Your task to perform on an android device: change timer sound Image 0: 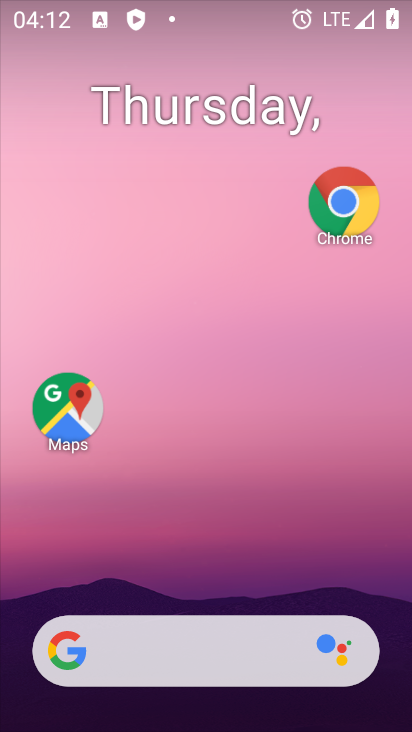
Step 0: drag from (239, 633) to (352, 63)
Your task to perform on an android device: change timer sound Image 1: 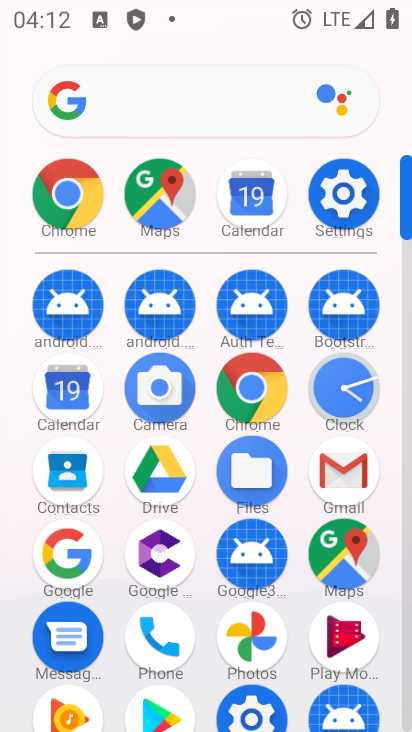
Step 1: click (335, 387)
Your task to perform on an android device: change timer sound Image 2: 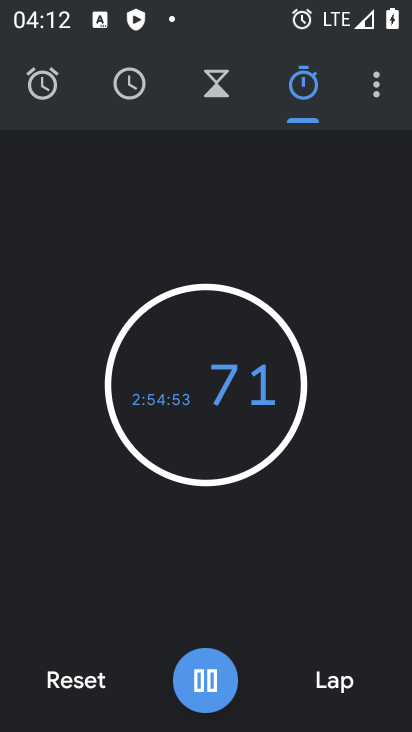
Step 2: click (377, 89)
Your task to perform on an android device: change timer sound Image 3: 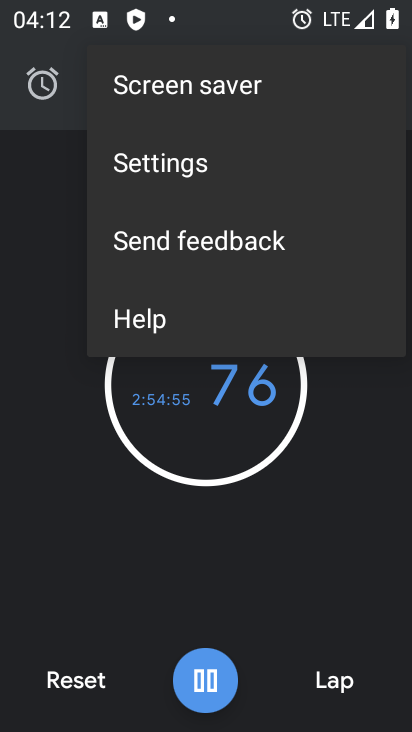
Step 3: click (217, 174)
Your task to perform on an android device: change timer sound Image 4: 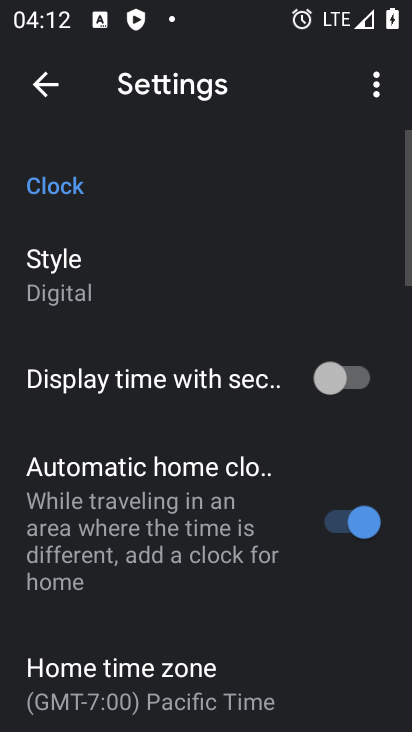
Step 4: drag from (236, 599) to (265, 22)
Your task to perform on an android device: change timer sound Image 5: 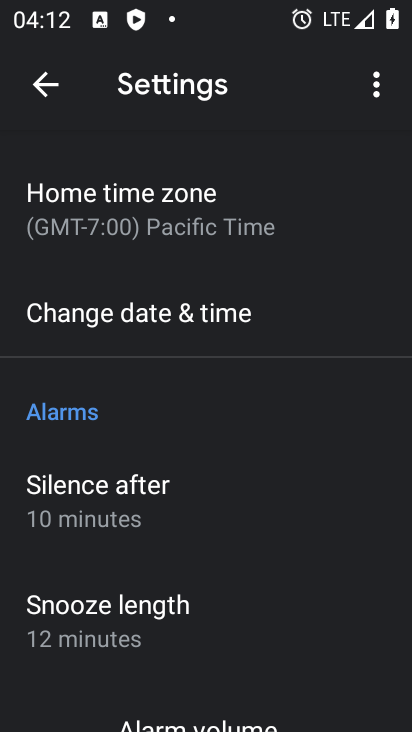
Step 5: drag from (196, 626) to (200, 254)
Your task to perform on an android device: change timer sound Image 6: 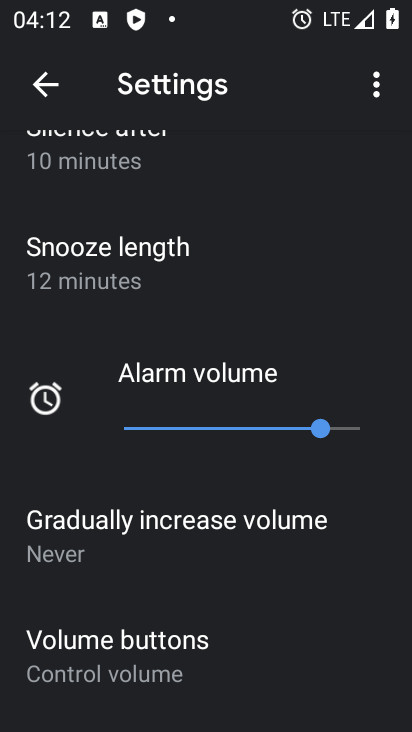
Step 6: drag from (215, 259) to (241, 718)
Your task to perform on an android device: change timer sound Image 7: 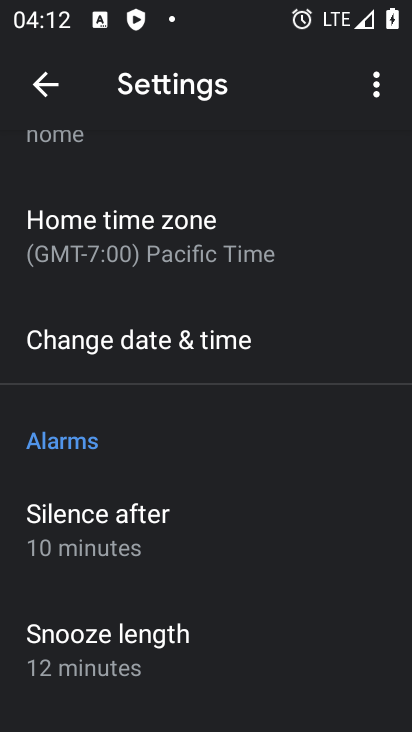
Step 7: drag from (220, 255) to (247, 133)
Your task to perform on an android device: change timer sound Image 8: 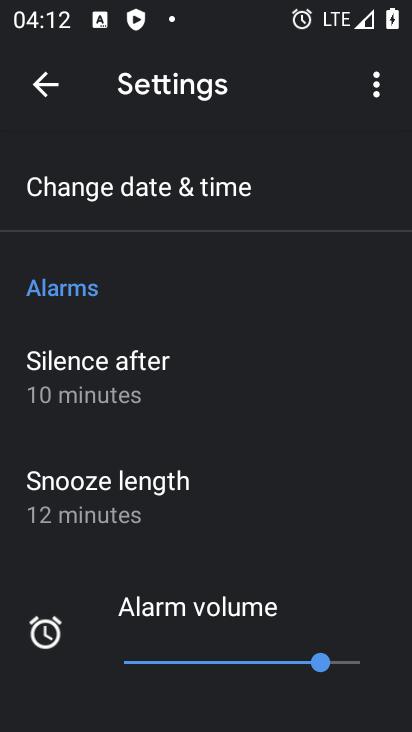
Step 8: drag from (322, 605) to (382, 105)
Your task to perform on an android device: change timer sound Image 9: 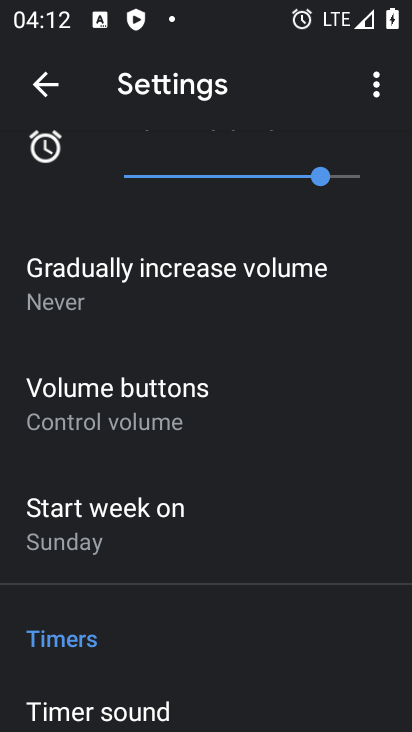
Step 9: drag from (168, 611) to (227, 268)
Your task to perform on an android device: change timer sound Image 10: 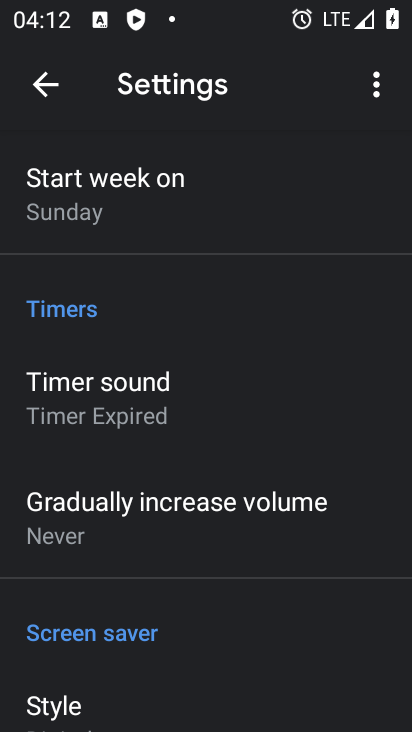
Step 10: click (179, 387)
Your task to perform on an android device: change timer sound Image 11: 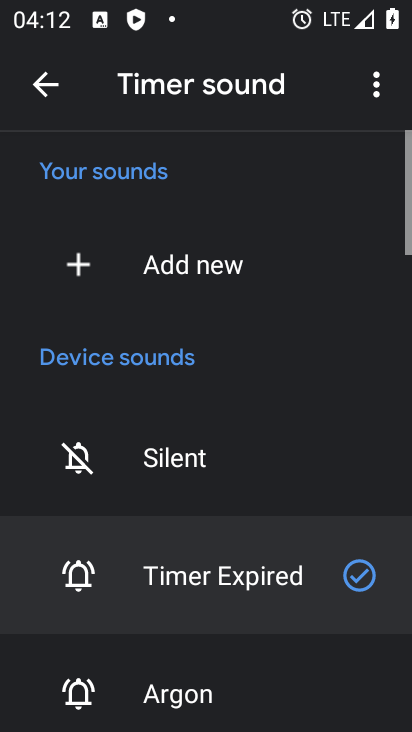
Step 11: click (131, 690)
Your task to perform on an android device: change timer sound Image 12: 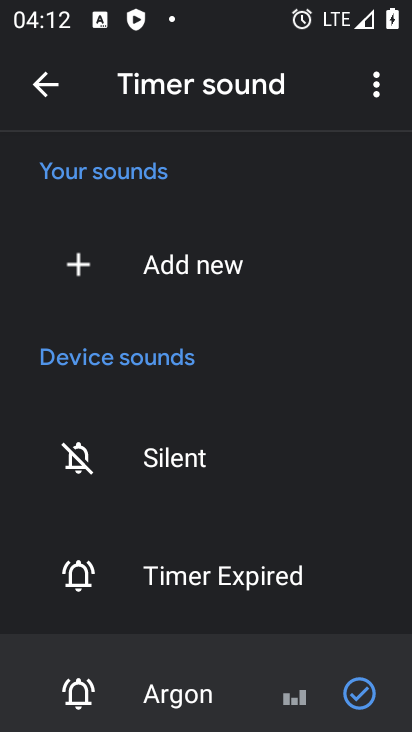
Step 12: task complete